Your task to perform on an android device: When is my next appointment? Image 0: 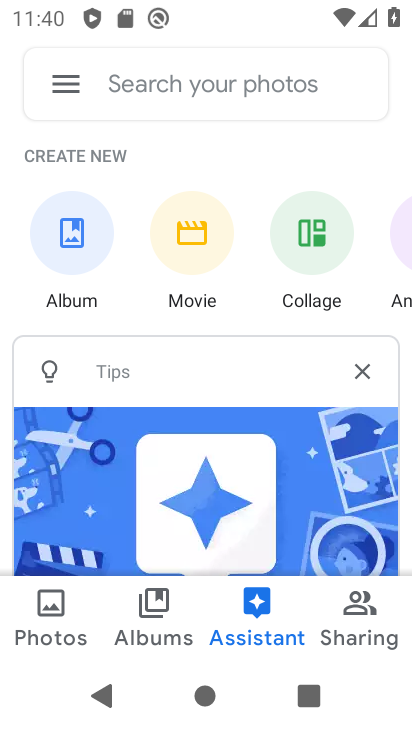
Step 0: press home button
Your task to perform on an android device: When is my next appointment? Image 1: 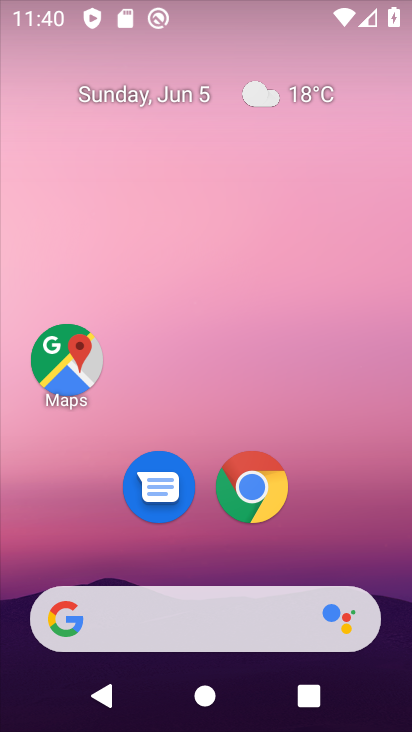
Step 1: drag from (363, 513) to (346, 146)
Your task to perform on an android device: When is my next appointment? Image 2: 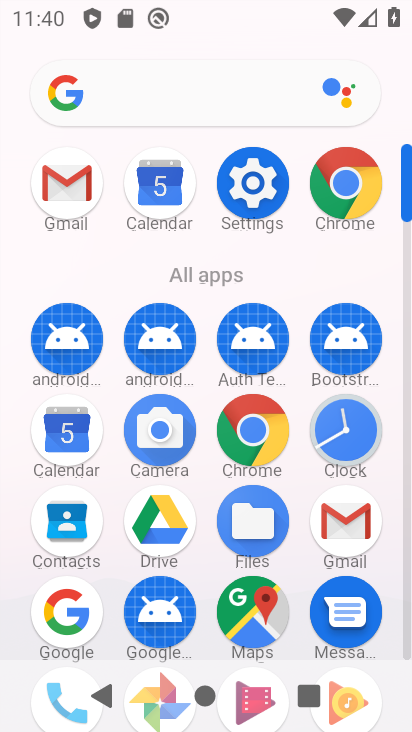
Step 2: click (76, 434)
Your task to perform on an android device: When is my next appointment? Image 3: 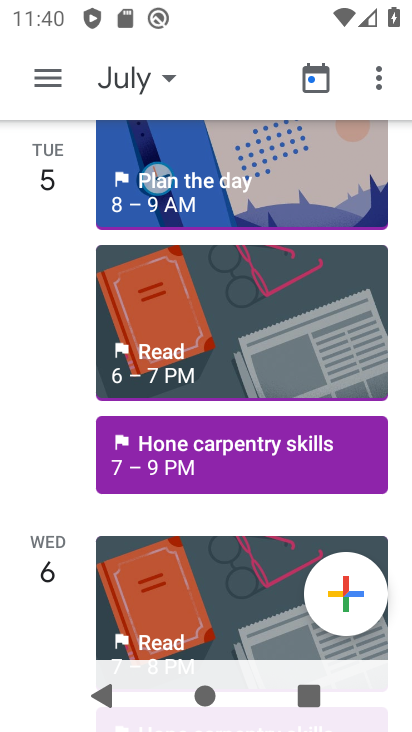
Step 3: drag from (245, 236) to (247, 556)
Your task to perform on an android device: When is my next appointment? Image 4: 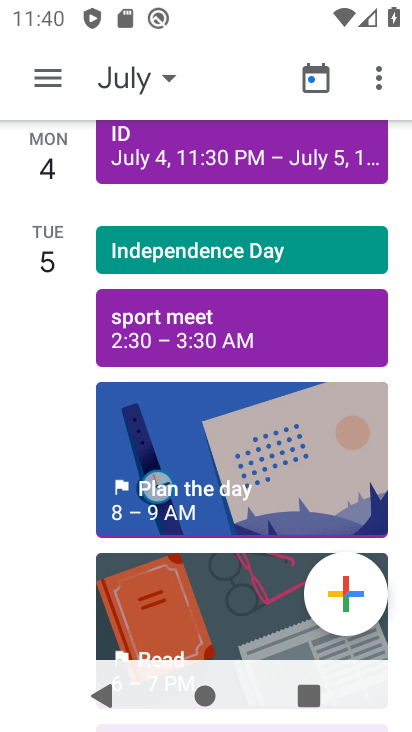
Step 4: drag from (262, 239) to (203, 594)
Your task to perform on an android device: When is my next appointment? Image 5: 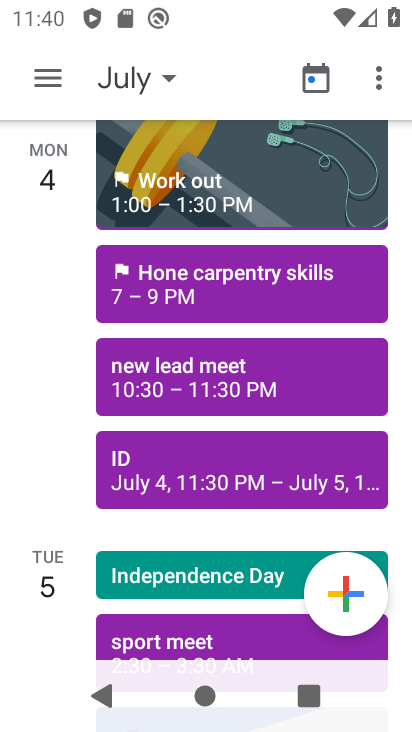
Step 5: click (125, 85)
Your task to perform on an android device: When is my next appointment? Image 6: 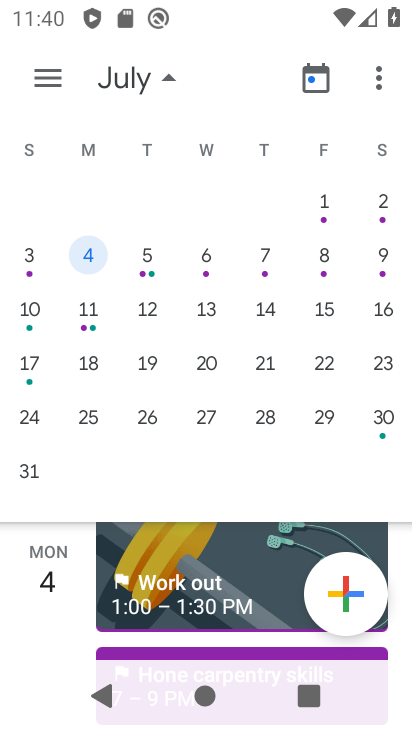
Step 6: drag from (40, 309) to (407, 357)
Your task to perform on an android device: When is my next appointment? Image 7: 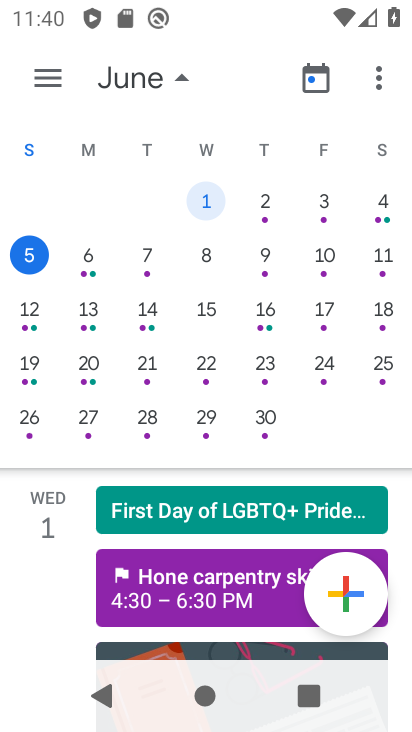
Step 7: click (99, 266)
Your task to perform on an android device: When is my next appointment? Image 8: 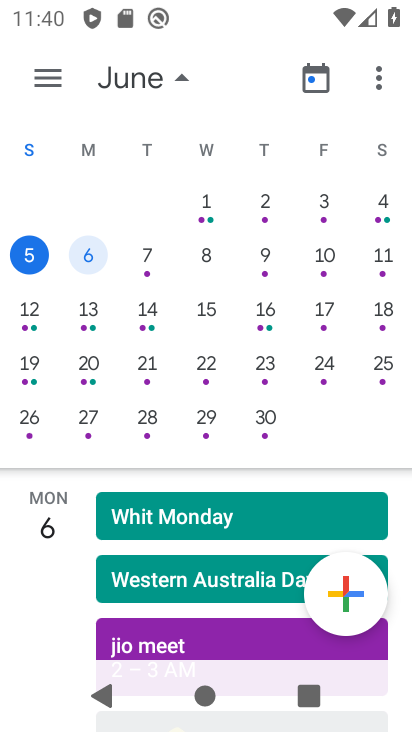
Step 8: task complete